Your task to perform on an android device: set the timer Image 0: 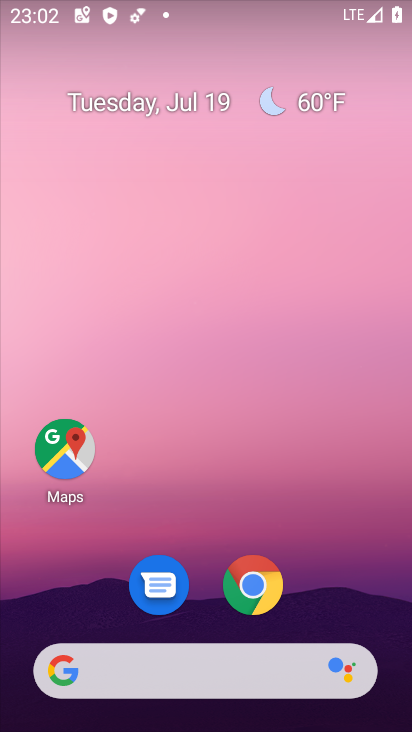
Step 0: drag from (294, 546) to (340, 46)
Your task to perform on an android device: set the timer Image 1: 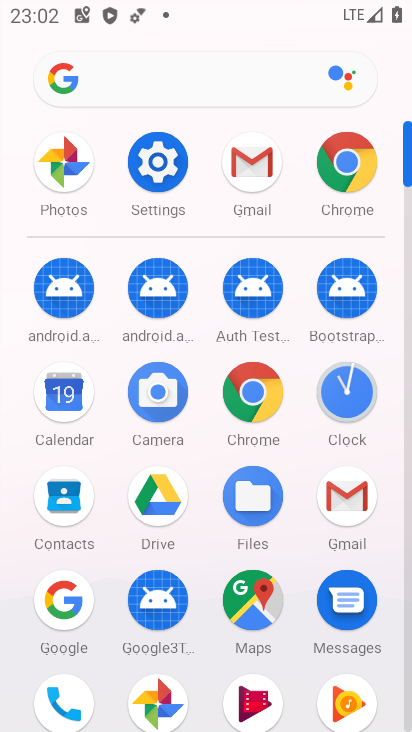
Step 1: click (339, 393)
Your task to perform on an android device: set the timer Image 2: 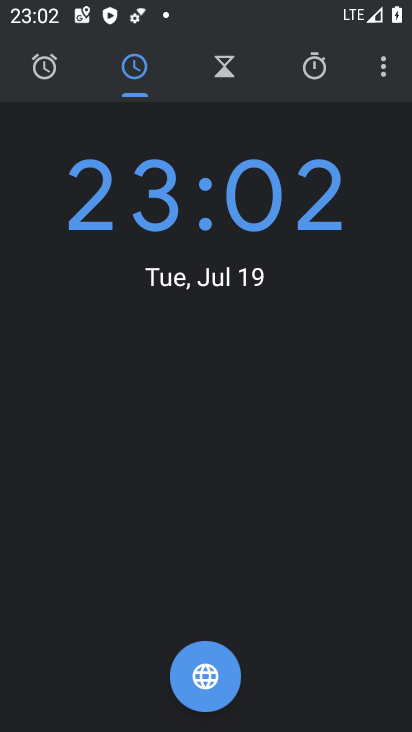
Step 2: click (224, 69)
Your task to perform on an android device: set the timer Image 3: 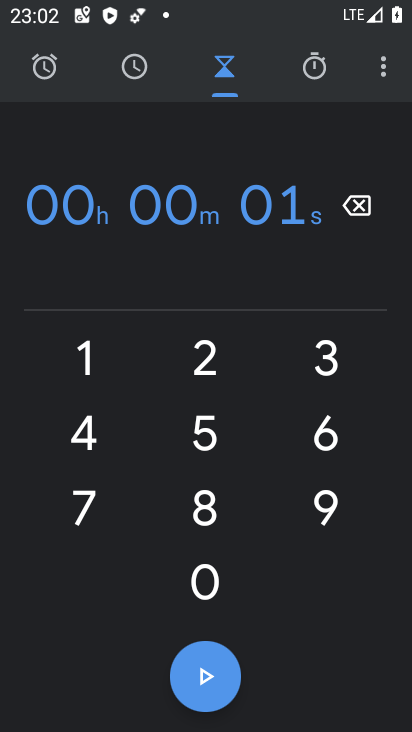
Step 3: click (90, 356)
Your task to perform on an android device: set the timer Image 4: 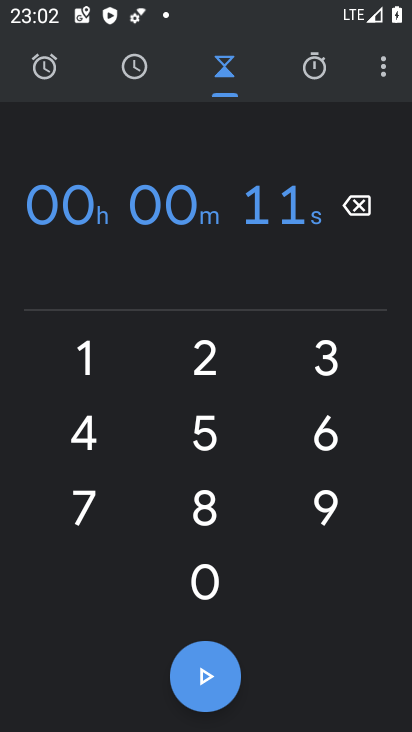
Step 4: task complete